Your task to perform on an android device: turn notification dots on Image 0: 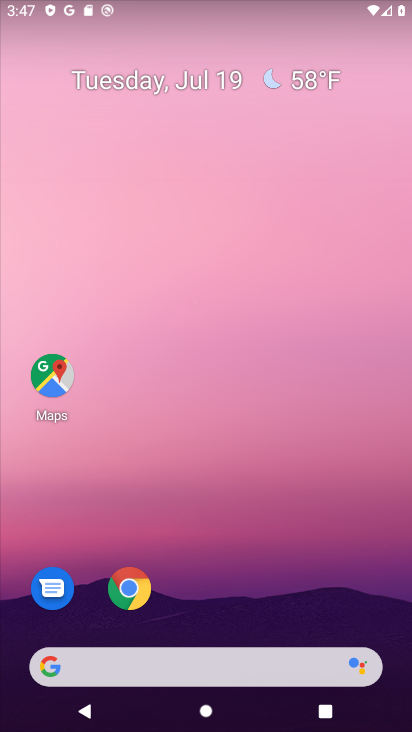
Step 0: drag from (235, 636) to (283, 159)
Your task to perform on an android device: turn notification dots on Image 1: 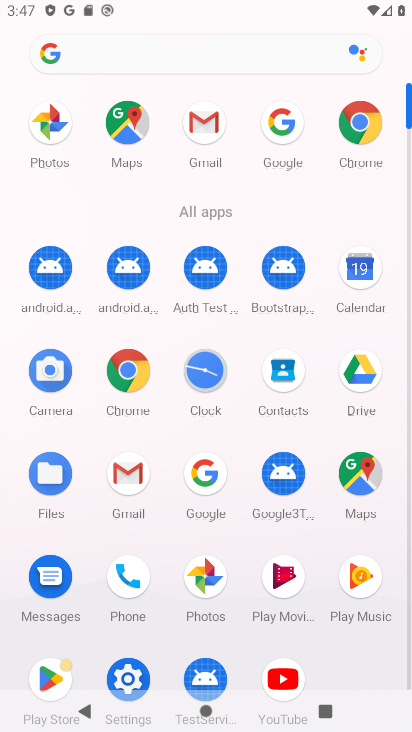
Step 1: click (128, 666)
Your task to perform on an android device: turn notification dots on Image 2: 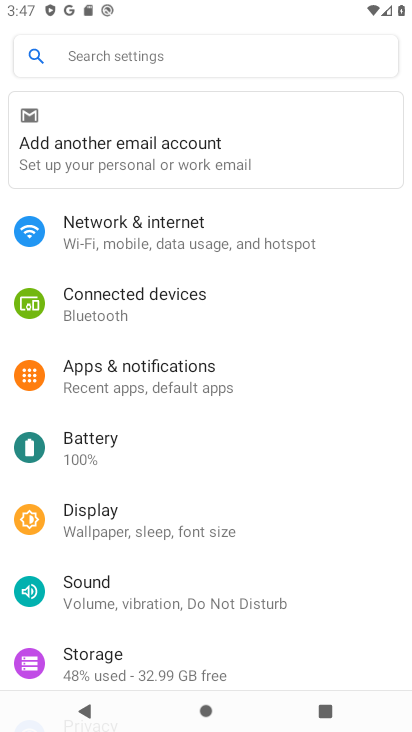
Step 2: click (231, 381)
Your task to perform on an android device: turn notification dots on Image 3: 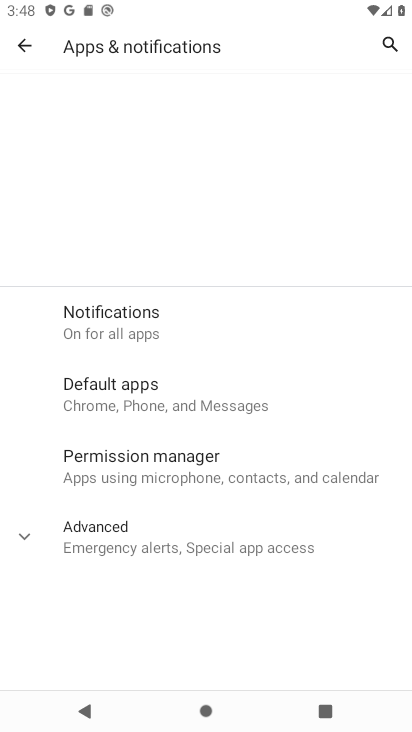
Step 3: click (180, 334)
Your task to perform on an android device: turn notification dots on Image 4: 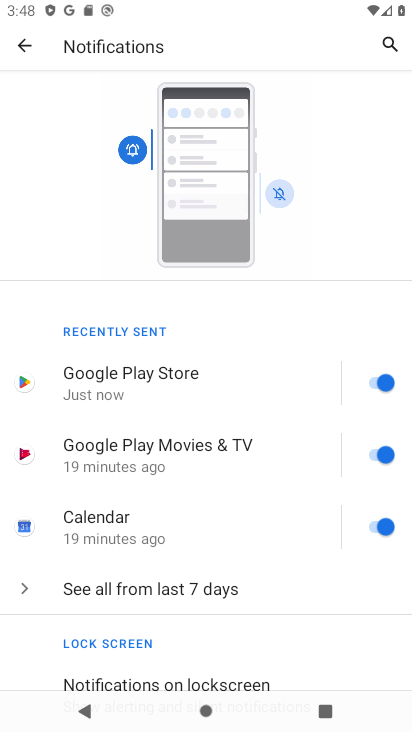
Step 4: drag from (227, 638) to (259, 351)
Your task to perform on an android device: turn notification dots on Image 5: 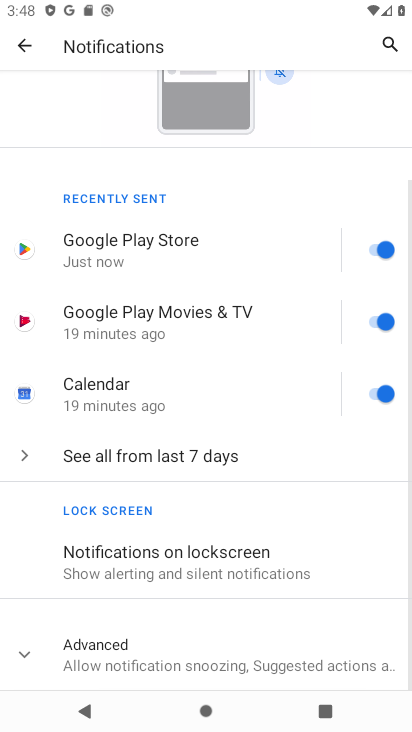
Step 5: click (240, 663)
Your task to perform on an android device: turn notification dots on Image 6: 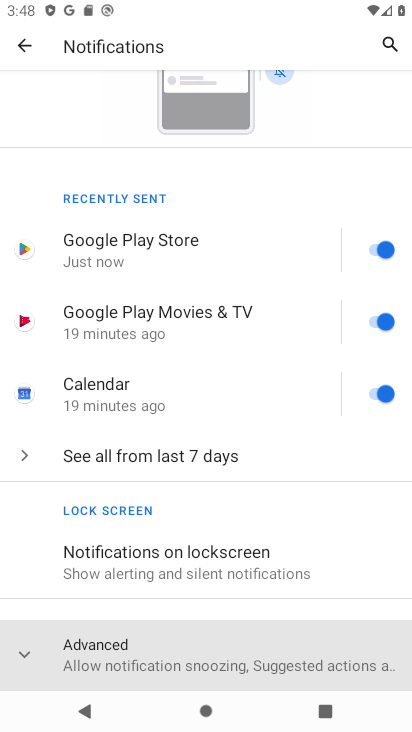
Step 6: task complete